Your task to perform on an android device: Open the stopwatch Image 0: 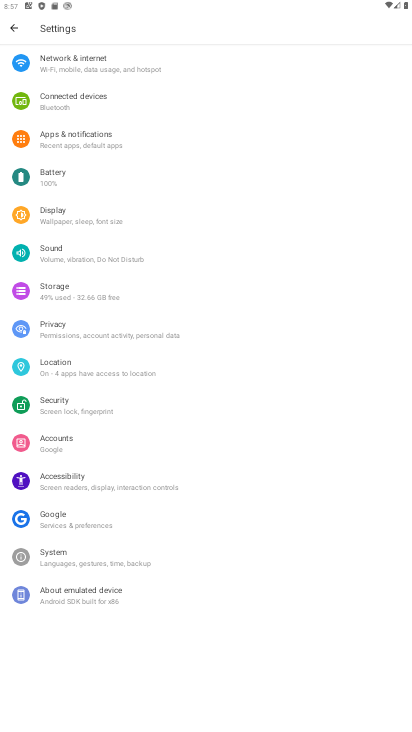
Step 0: press home button
Your task to perform on an android device: Open the stopwatch Image 1: 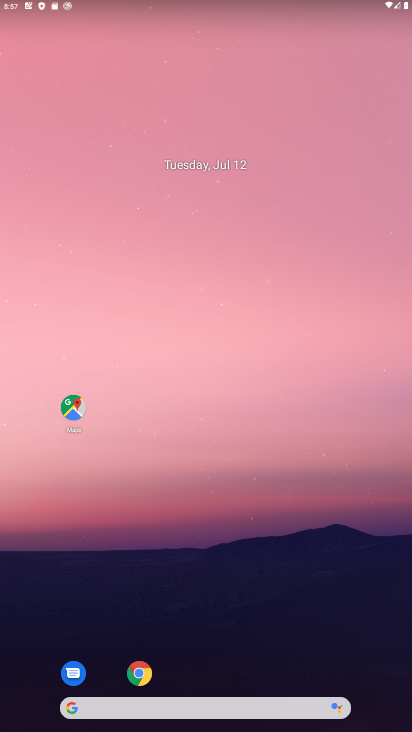
Step 1: drag from (217, 697) to (229, 373)
Your task to perform on an android device: Open the stopwatch Image 2: 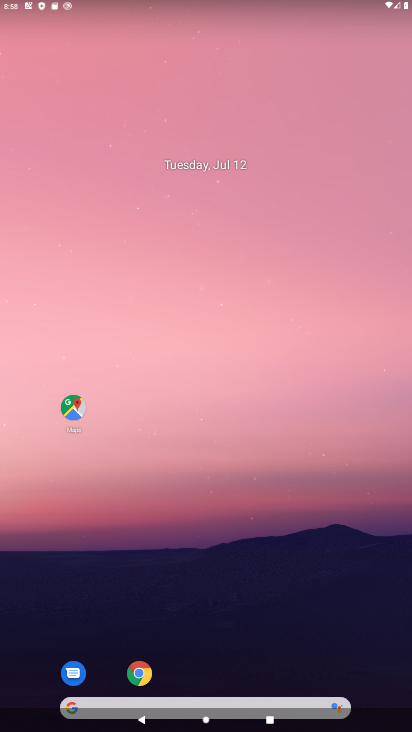
Step 2: drag from (251, 659) to (245, 391)
Your task to perform on an android device: Open the stopwatch Image 3: 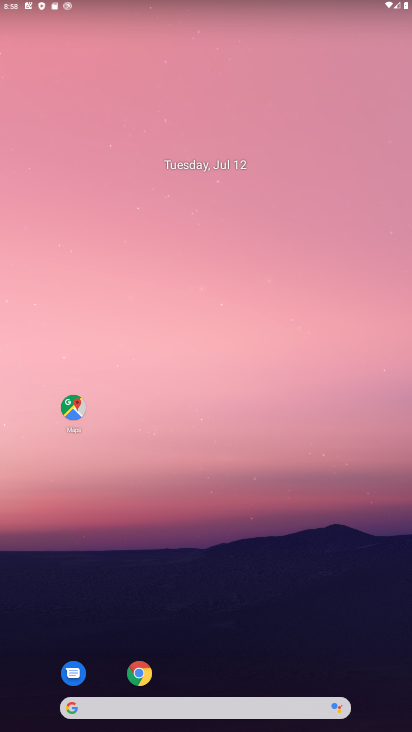
Step 3: drag from (160, 688) to (192, 180)
Your task to perform on an android device: Open the stopwatch Image 4: 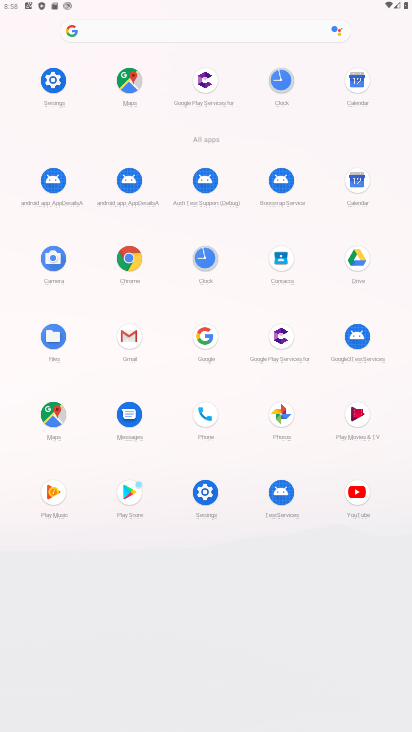
Step 4: click (203, 260)
Your task to perform on an android device: Open the stopwatch Image 5: 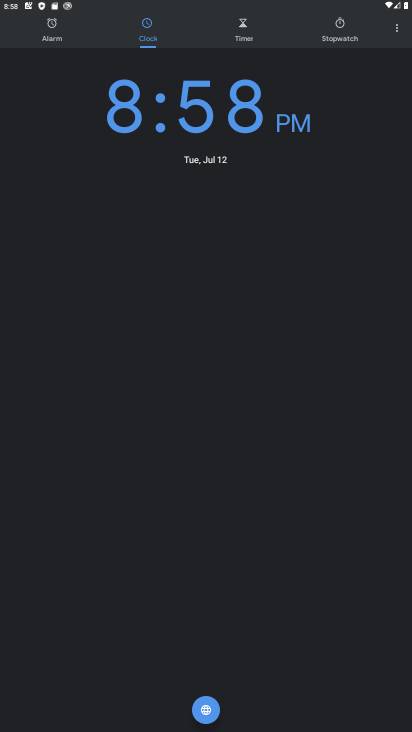
Step 5: click (334, 31)
Your task to perform on an android device: Open the stopwatch Image 6: 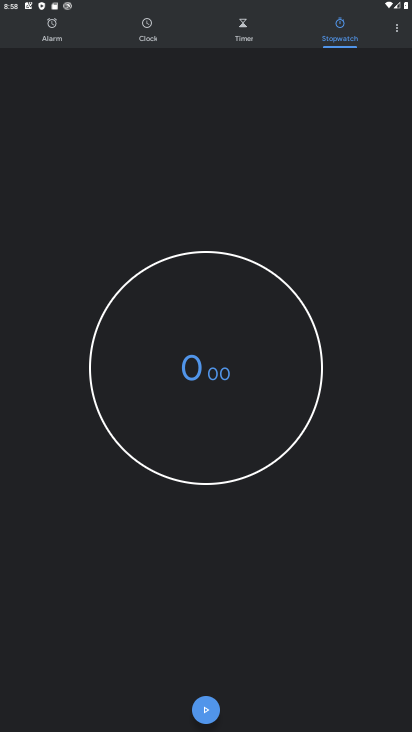
Step 6: task complete